Your task to perform on an android device: open app "Pinterest" Image 0: 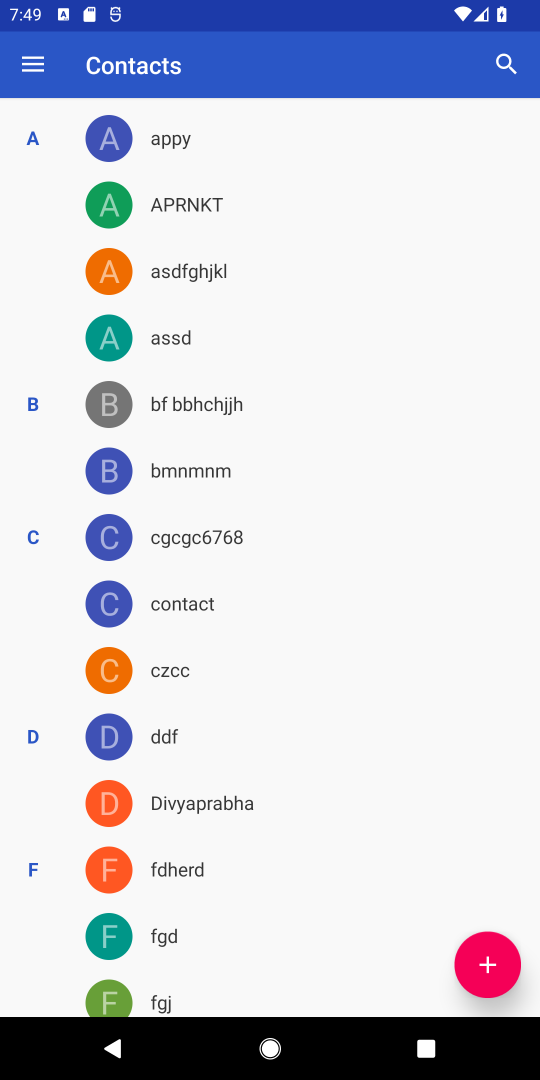
Step 0: press home button
Your task to perform on an android device: open app "Pinterest" Image 1: 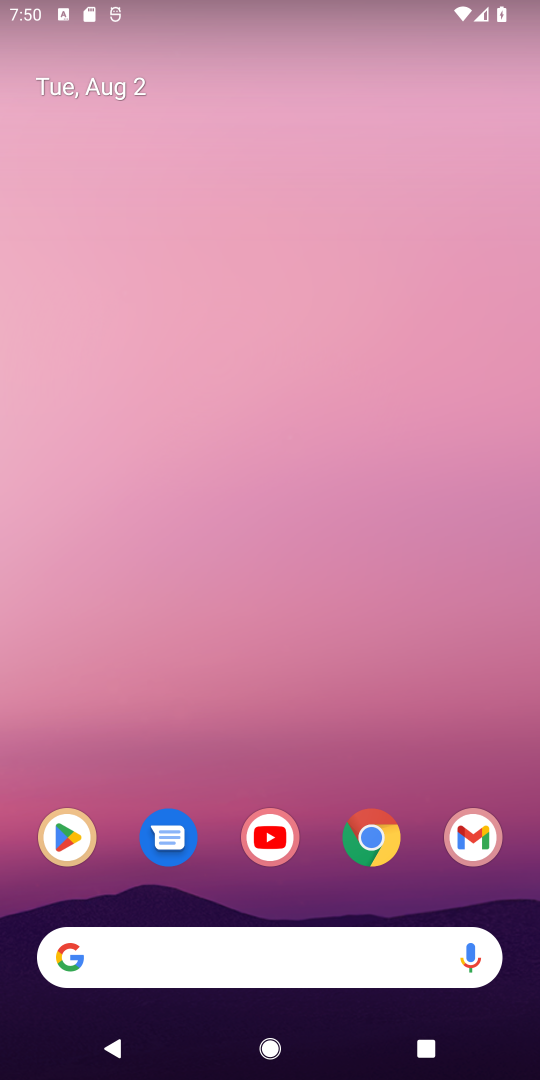
Step 1: click (68, 845)
Your task to perform on an android device: open app "Pinterest" Image 2: 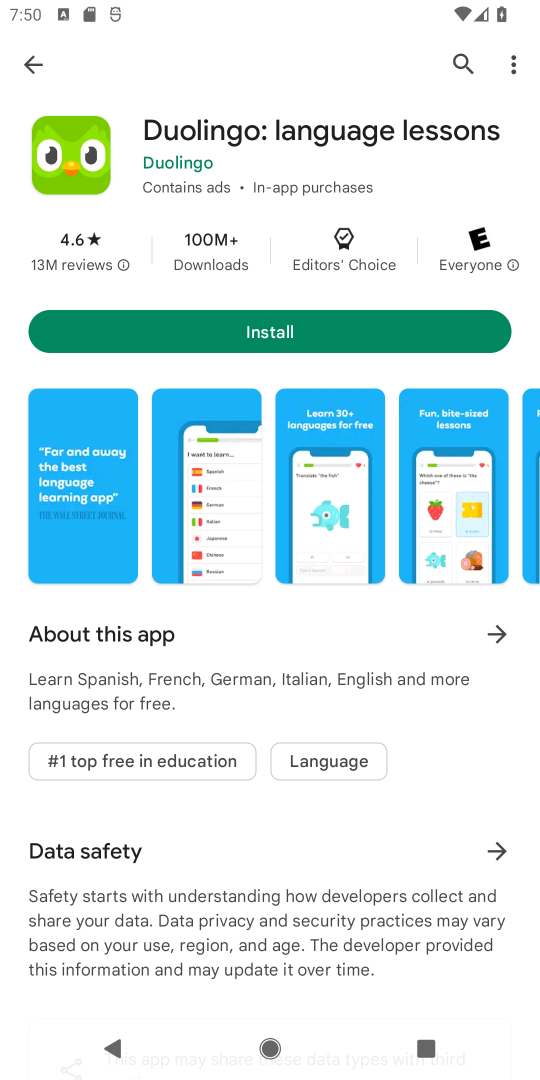
Step 2: click (467, 68)
Your task to perform on an android device: open app "Pinterest" Image 3: 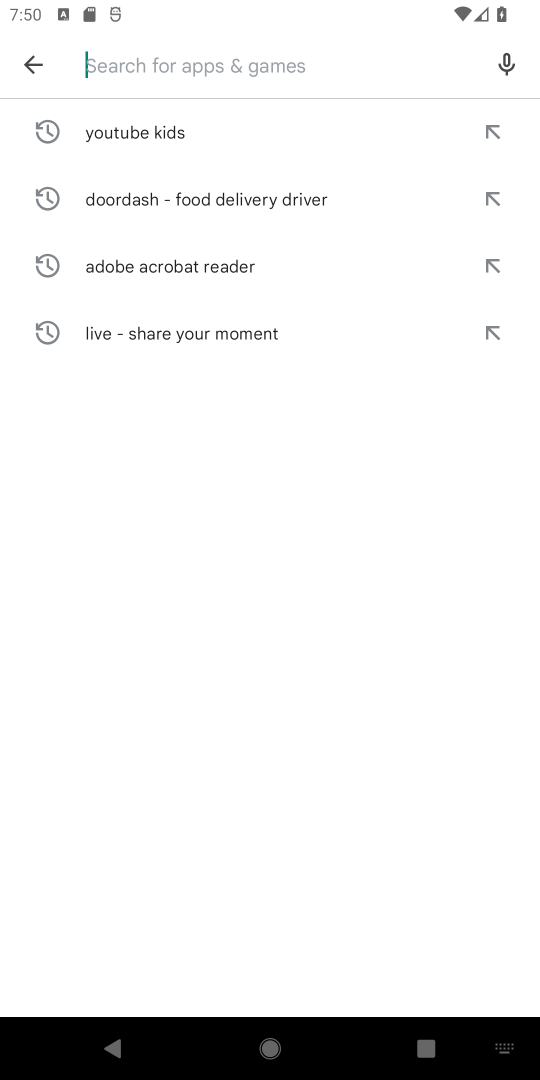
Step 3: type "Pinterest"
Your task to perform on an android device: open app "Pinterest" Image 4: 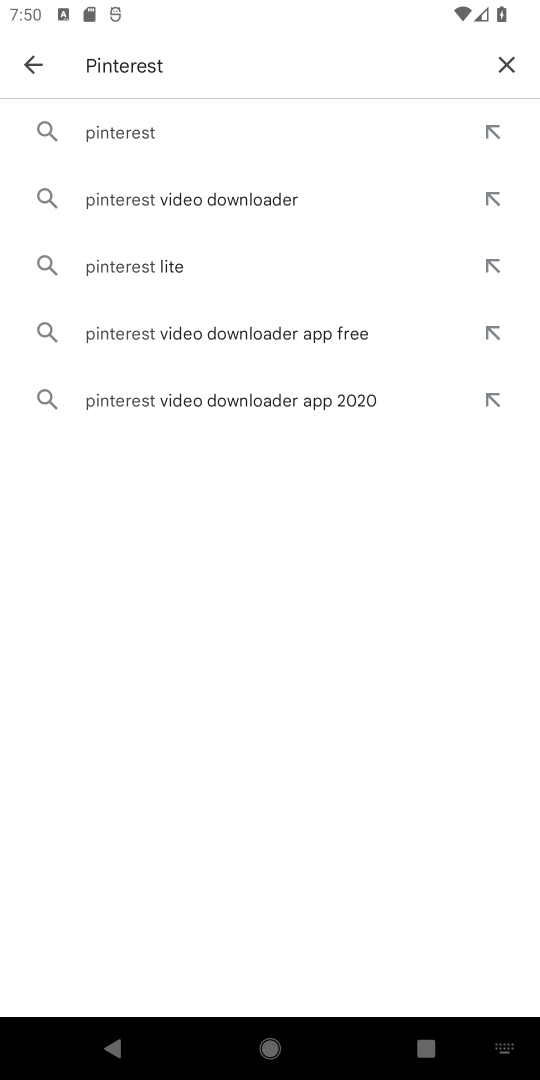
Step 4: click (133, 140)
Your task to perform on an android device: open app "Pinterest" Image 5: 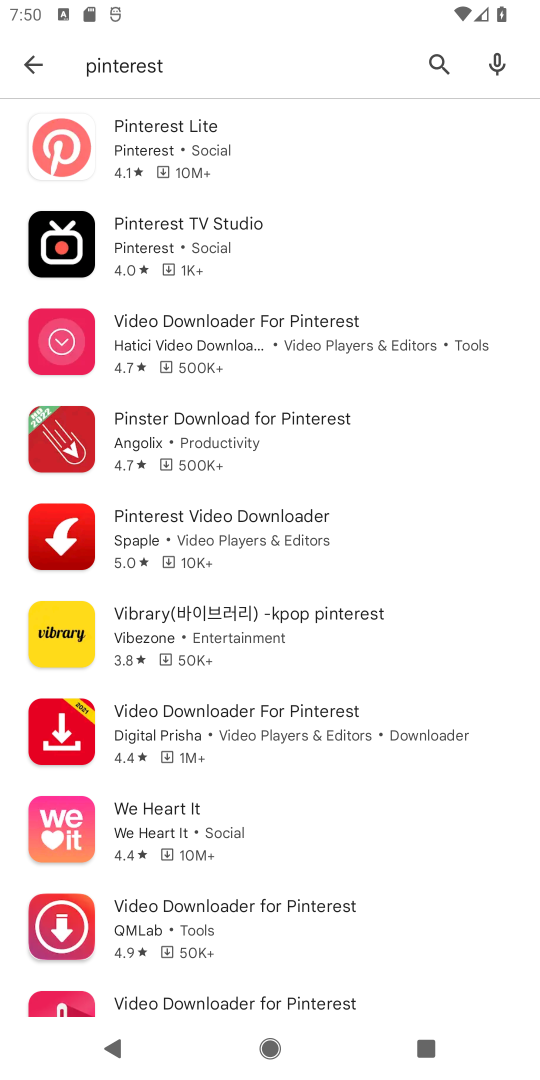
Step 5: task complete